Your task to perform on an android device: show emergency info Image 0: 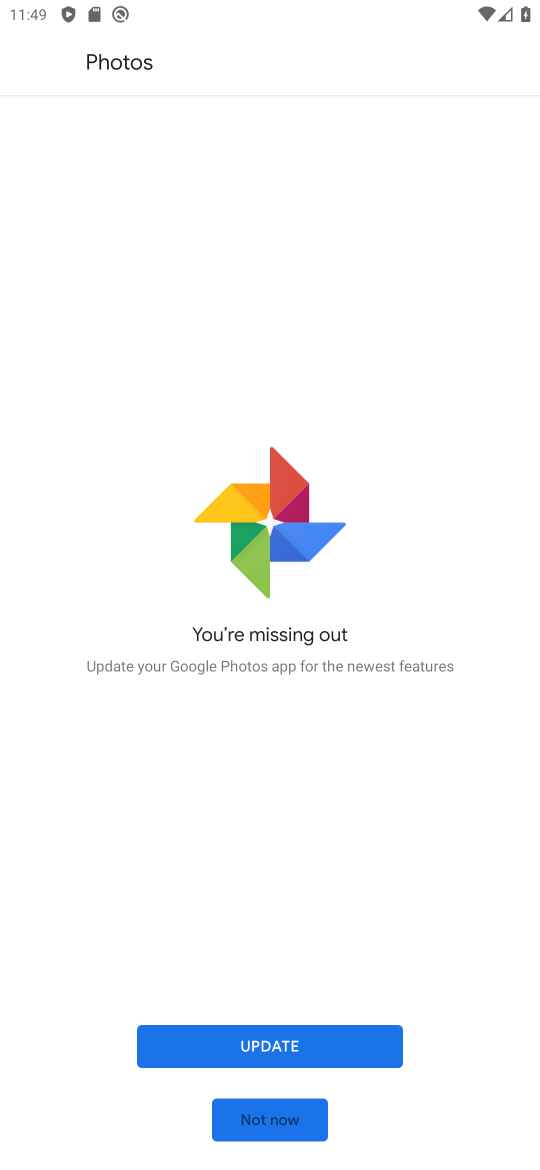
Step 0: task complete